Your task to perform on an android device: Open wifi settings Image 0: 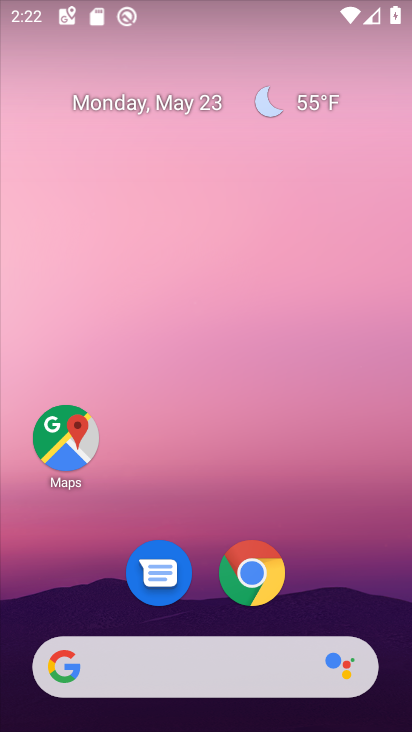
Step 0: drag from (330, 553) to (271, 35)
Your task to perform on an android device: Open wifi settings Image 1: 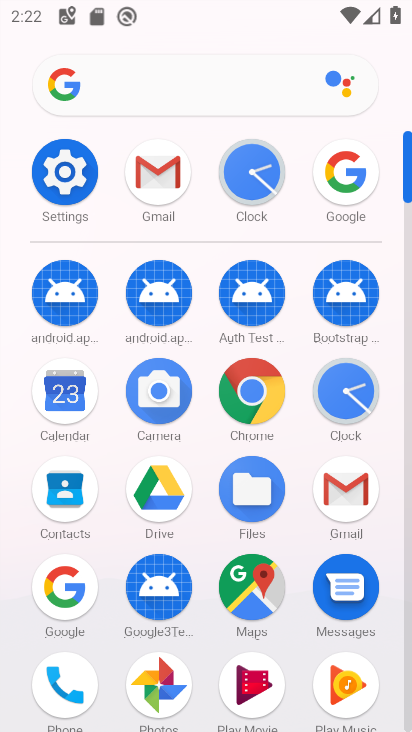
Step 1: click (61, 163)
Your task to perform on an android device: Open wifi settings Image 2: 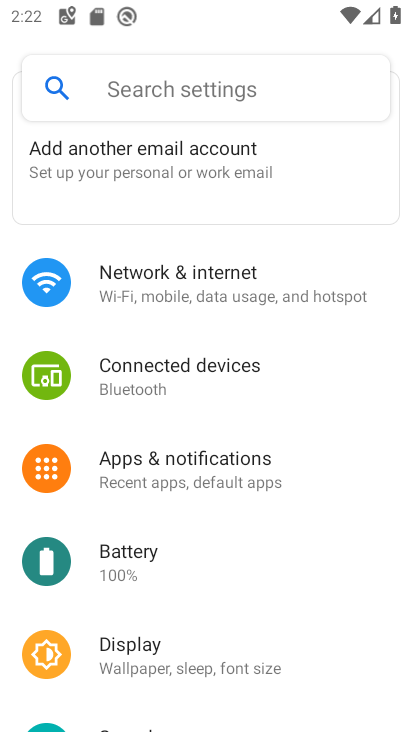
Step 2: click (174, 277)
Your task to perform on an android device: Open wifi settings Image 3: 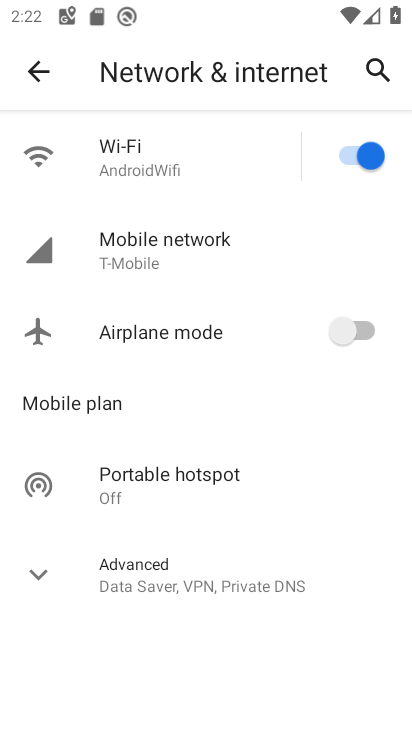
Step 3: click (110, 166)
Your task to perform on an android device: Open wifi settings Image 4: 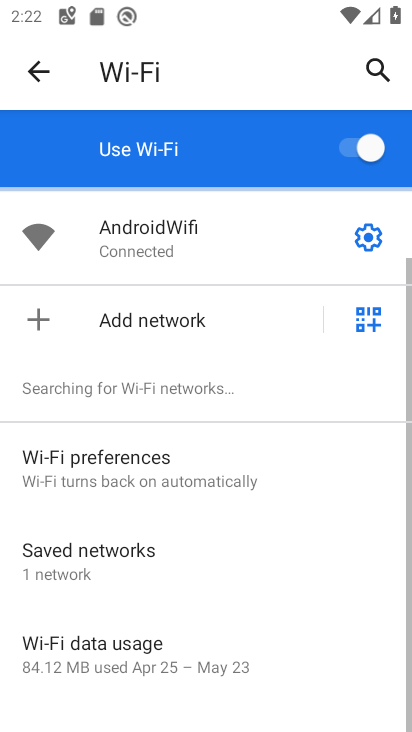
Step 4: task complete